Your task to perform on an android device: allow notifications from all sites in the chrome app Image 0: 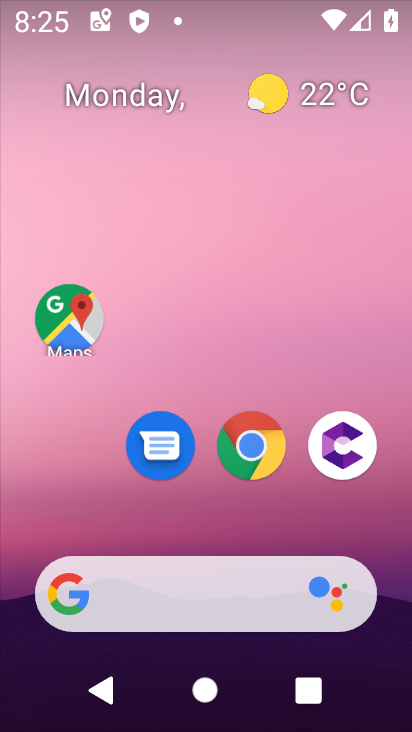
Step 0: click (260, 457)
Your task to perform on an android device: allow notifications from all sites in the chrome app Image 1: 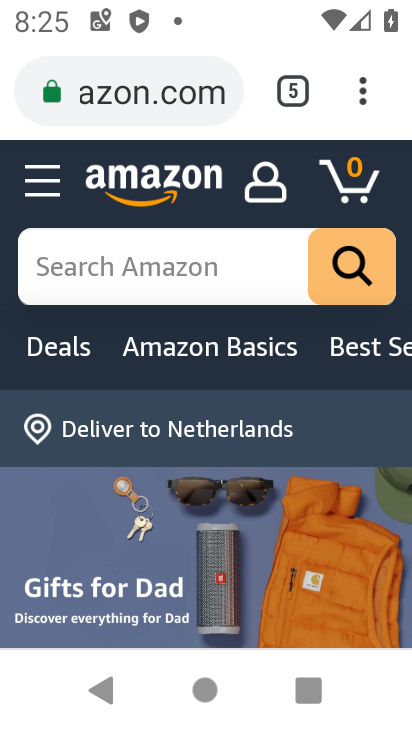
Step 1: drag from (361, 85) to (156, 463)
Your task to perform on an android device: allow notifications from all sites in the chrome app Image 2: 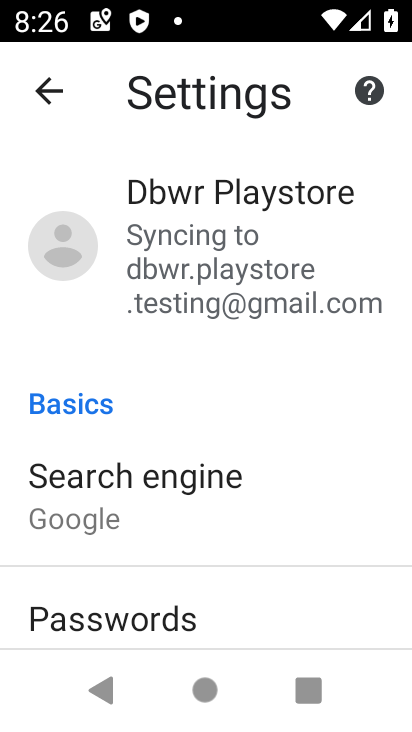
Step 2: drag from (352, 526) to (286, 205)
Your task to perform on an android device: allow notifications from all sites in the chrome app Image 3: 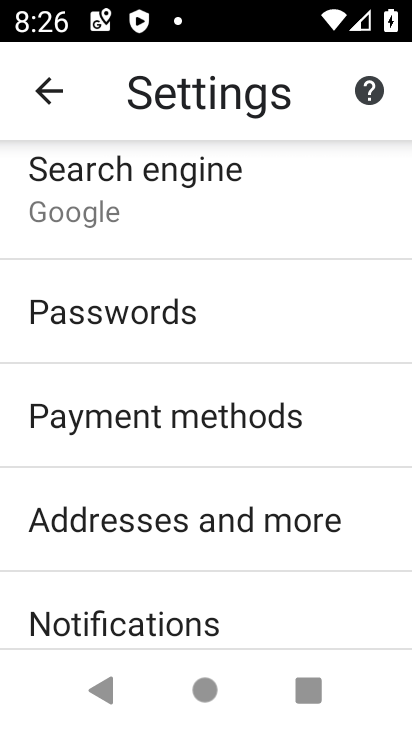
Step 3: drag from (22, 586) to (51, 308)
Your task to perform on an android device: allow notifications from all sites in the chrome app Image 4: 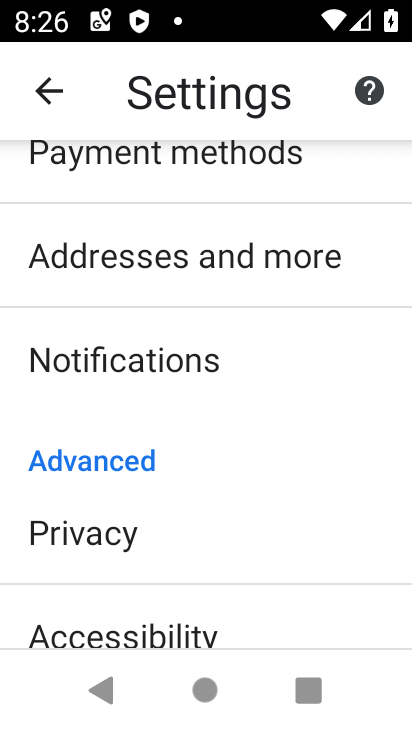
Step 4: drag from (350, 518) to (303, 284)
Your task to perform on an android device: allow notifications from all sites in the chrome app Image 5: 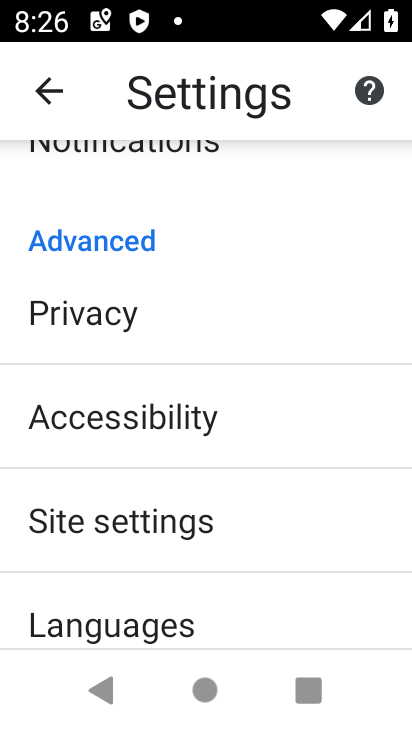
Step 5: click (180, 511)
Your task to perform on an android device: allow notifications from all sites in the chrome app Image 6: 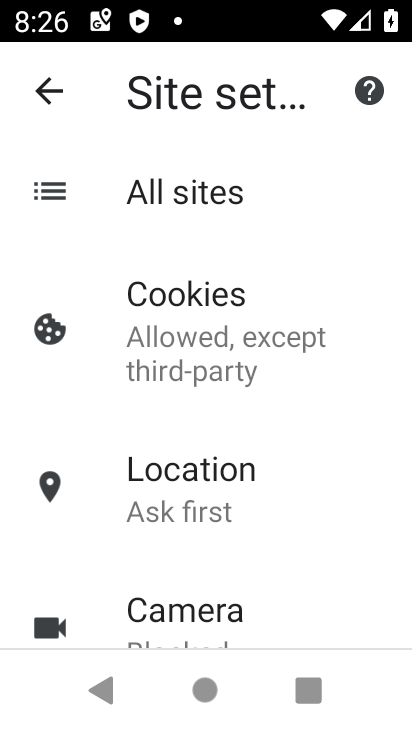
Step 6: drag from (44, 558) to (33, 219)
Your task to perform on an android device: allow notifications from all sites in the chrome app Image 7: 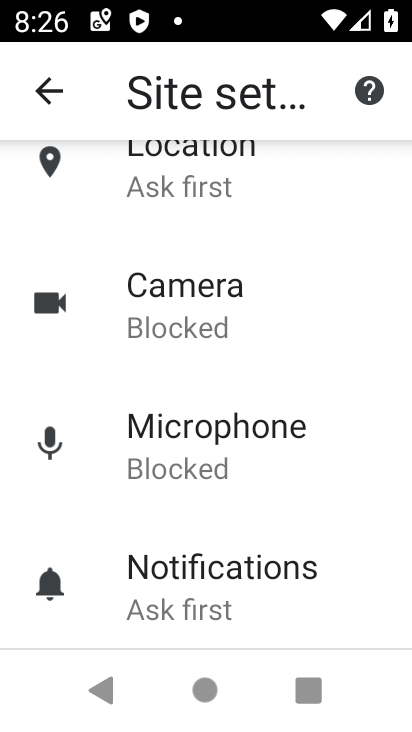
Step 7: click (234, 572)
Your task to perform on an android device: allow notifications from all sites in the chrome app Image 8: 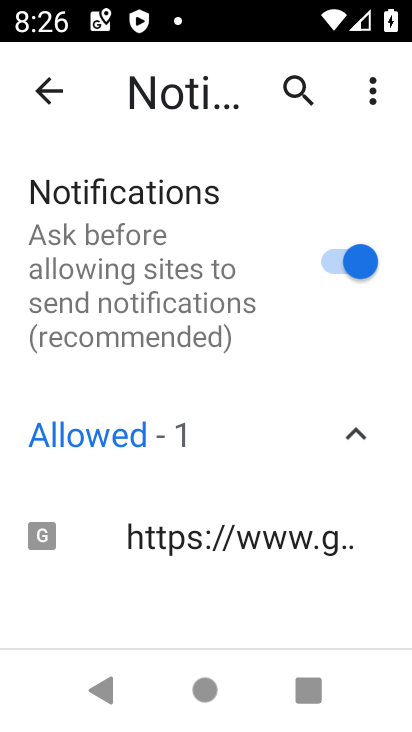
Step 8: drag from (332, 254) to (389, 395)
Your task to perform on an android device: allow notifications from all sites in the chrome app Image 9: 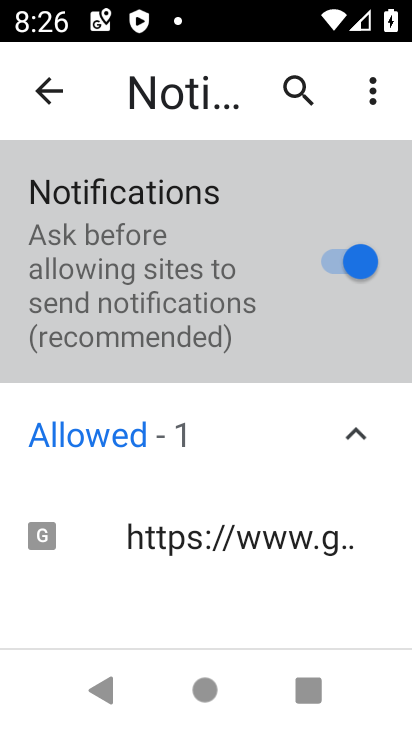
Step 9: click (229, 446)
Your task to perform on an android device: allow notifications from all sites in the chrome app Image 10: 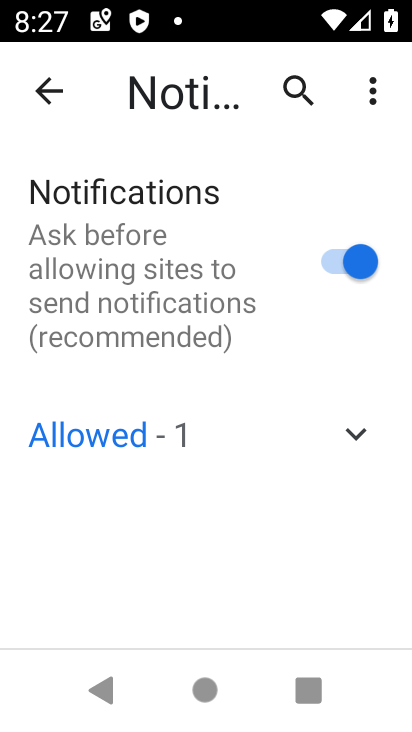
Step 10: task complete